Your task to perform on an android device: What's the weather today? Image 0: 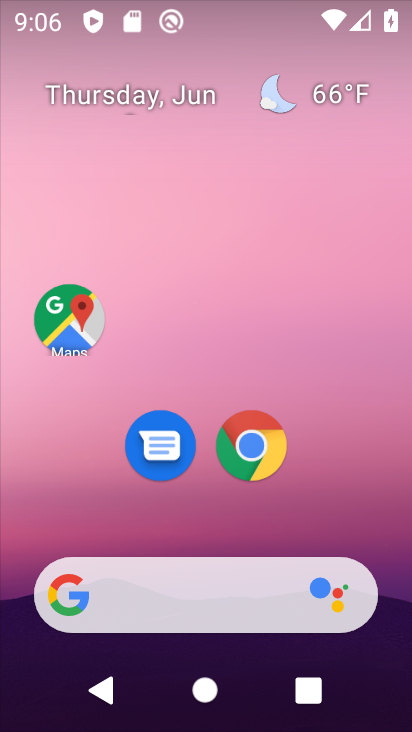
Step 0: click (213, 575)
Your task to perform on an android device: What's the weather today? Image 1: 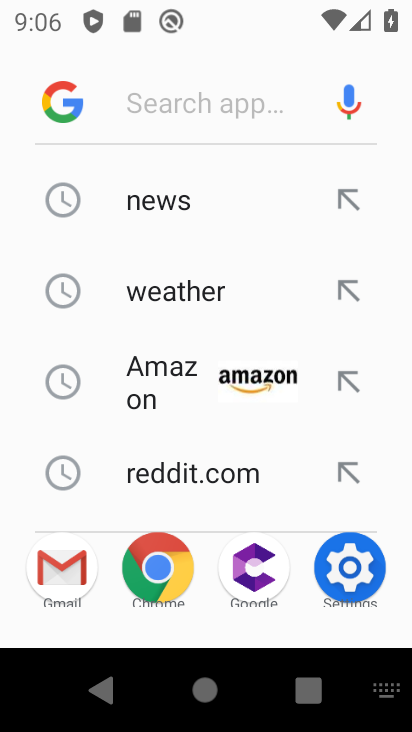
Step 1: type "what's the weather today "
Your task to perform on an android device: What's the weather today? Image 2: 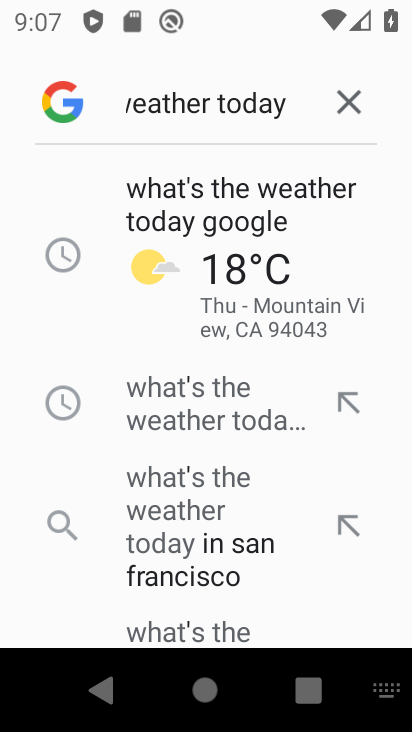
Step 2: click (216, 230)
Your task to perform on an android device: What's the weather today? Image 3: 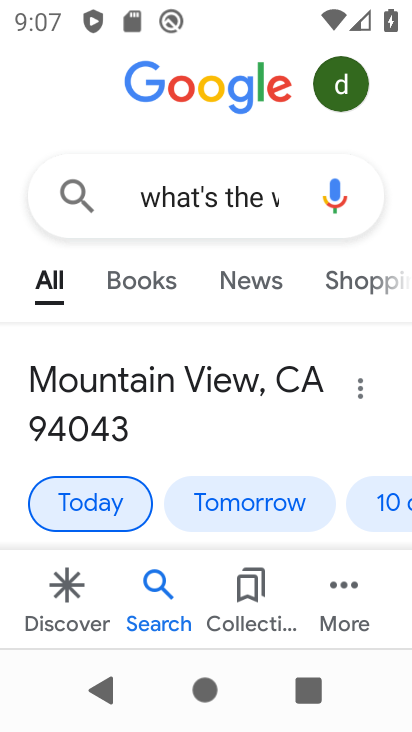
Step 3: task complete